Your task to perform on an android device: turn off smart reply in the gmail app Image 0: 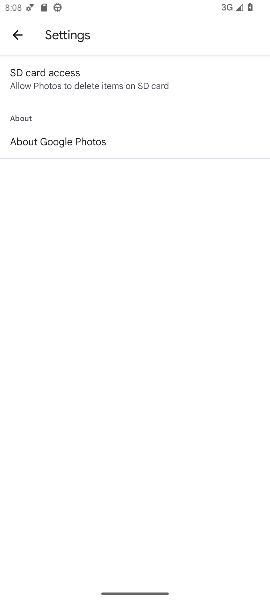
Step 0: click (17, 39)
Your task to perform on an android device: turn off smart reply in the gmail app Image 1: 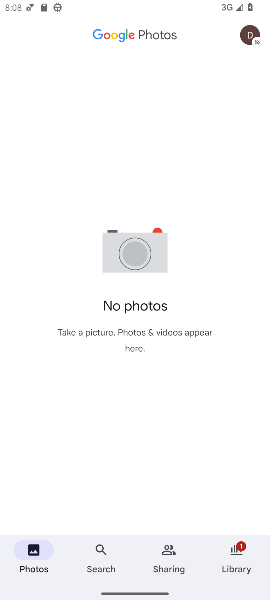
Step 1: press home button
Your task to perform on an android device: turn off smart reply in the gmail app Image 2: 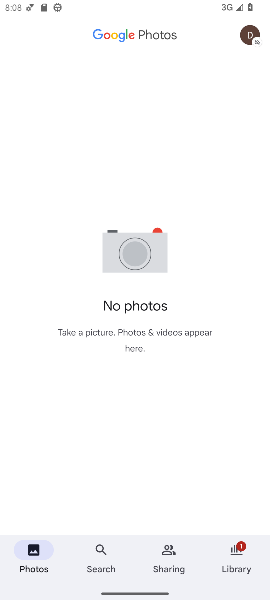
Step 2: press home button
Your task to perform on an android device: turn off smart reply in the gmail app Image 3: 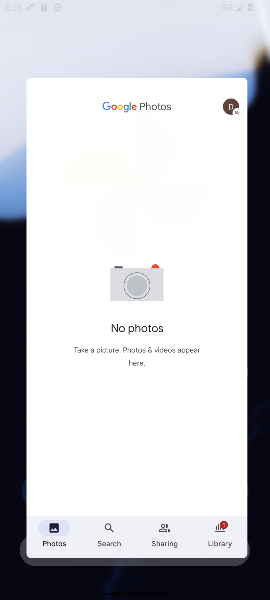
Step 3: press home button
Your task to perform on an android device: turn off smart reply in the gmail app Image 4: 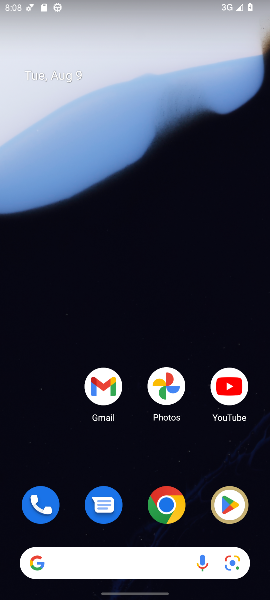
Step 4: press home button
Your task to perform on an android device: turn off smart reply in the gmail app Image 5: 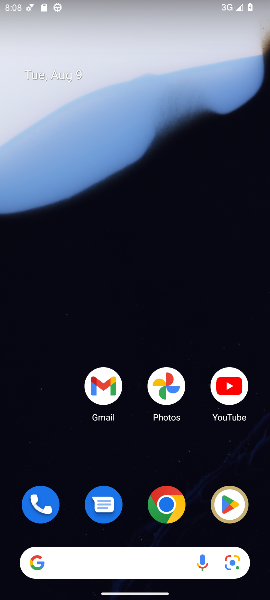
Step 5: click (110, 381)
Your task to perform on an android device: turn off smart reply in the gmail app Image 6: 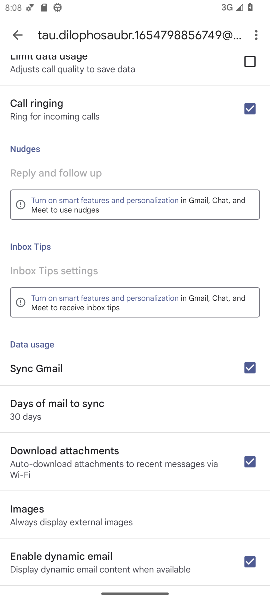
Step 6: task complete